Your task to perform on an android device: Go to Google maps Image 0: 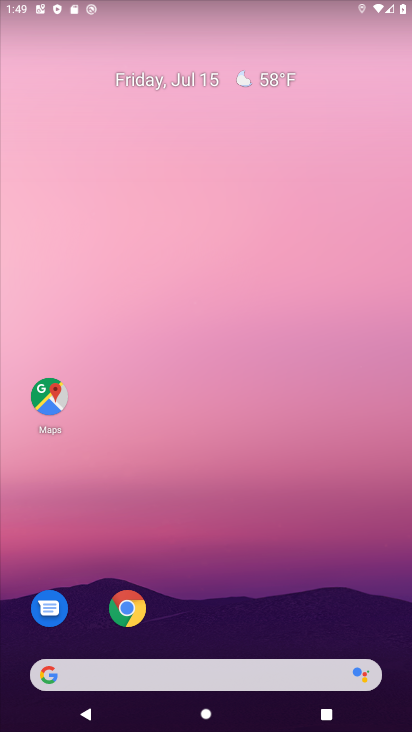
Step 0: drag from (251, 592) to (235, 129)
Your task to perform on an android device: Go to Google maps Image 1: 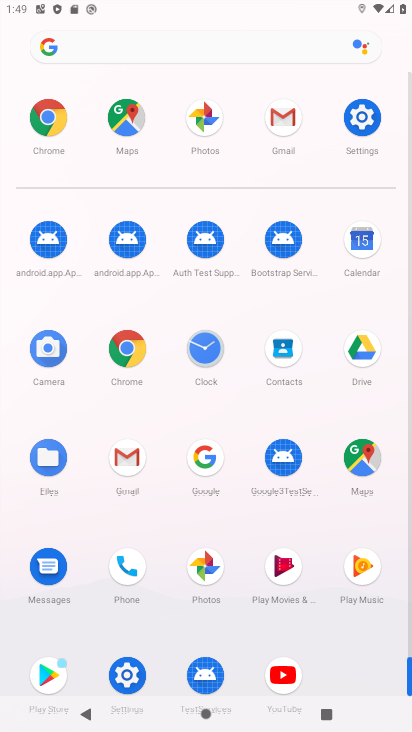
Step 1: click (359, 442)
Your task to perform on an android device: Go to Google maps Image 2: 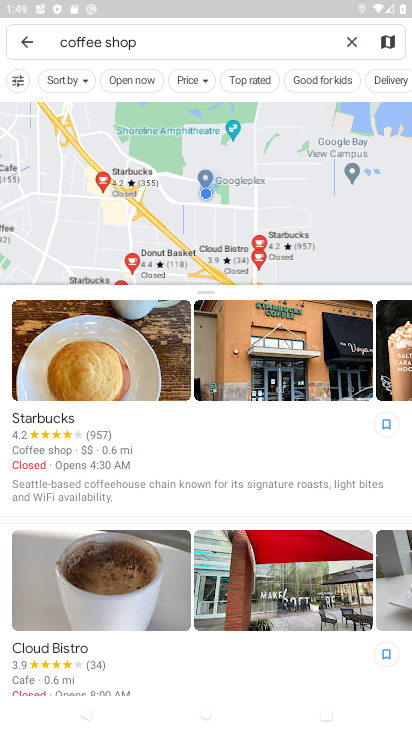
Step 2: click (26, 41)
Your task to perform on an android device: Go to Google maps Image 3: 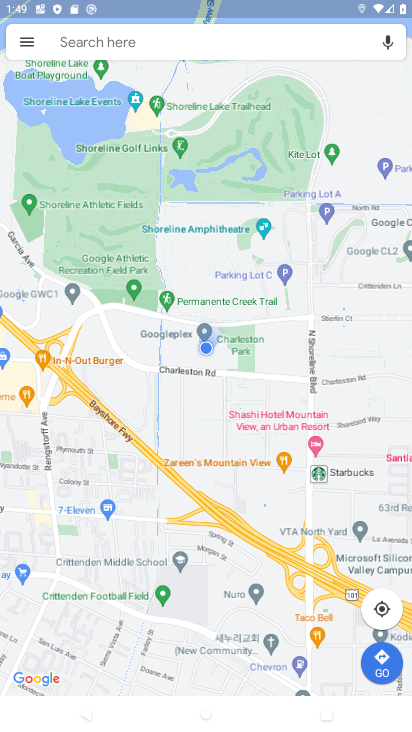
Step 3: task complete